Your task to perform on an android device: turn off picture-in-picture Image 0: 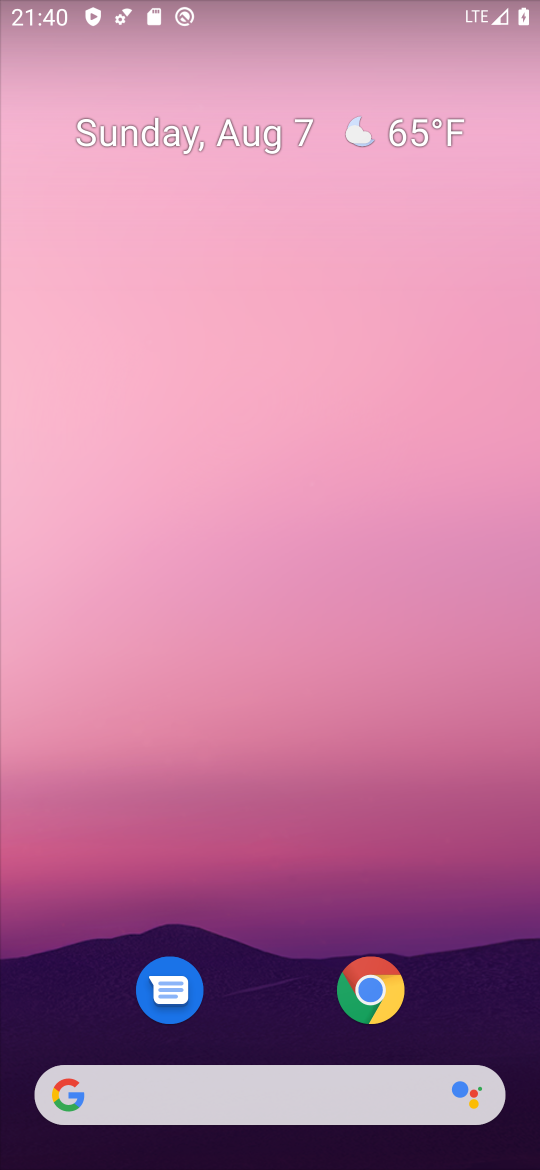
Step 0: click (380, 982)
Your task to perform on an android device: turn off picture-in-picture Image 1: 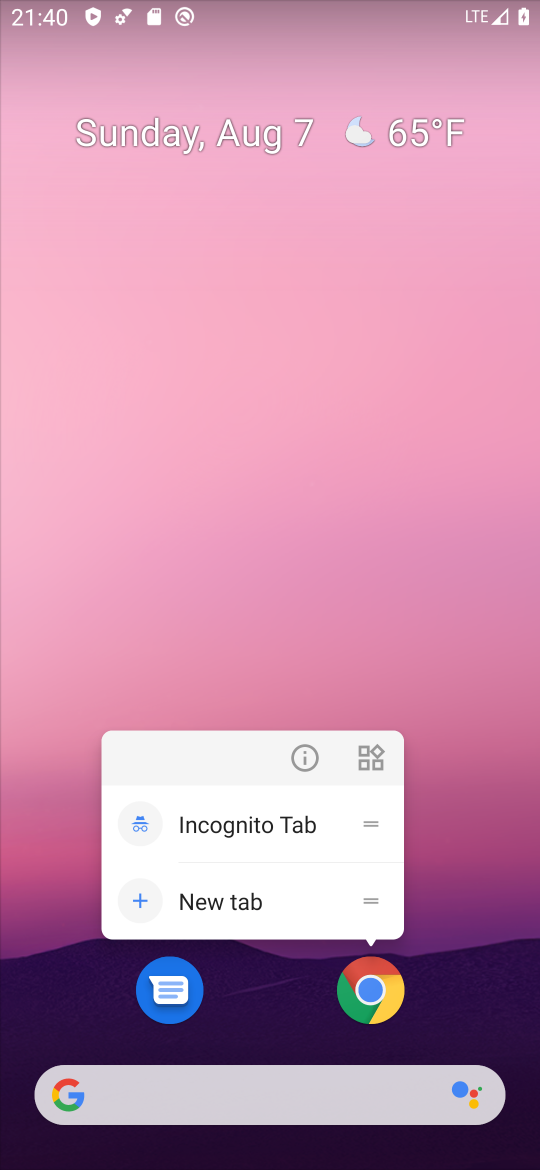
Step 1: click (303, 748)
Your task to perform on an android device: turn off picture-in-picture Image 2: 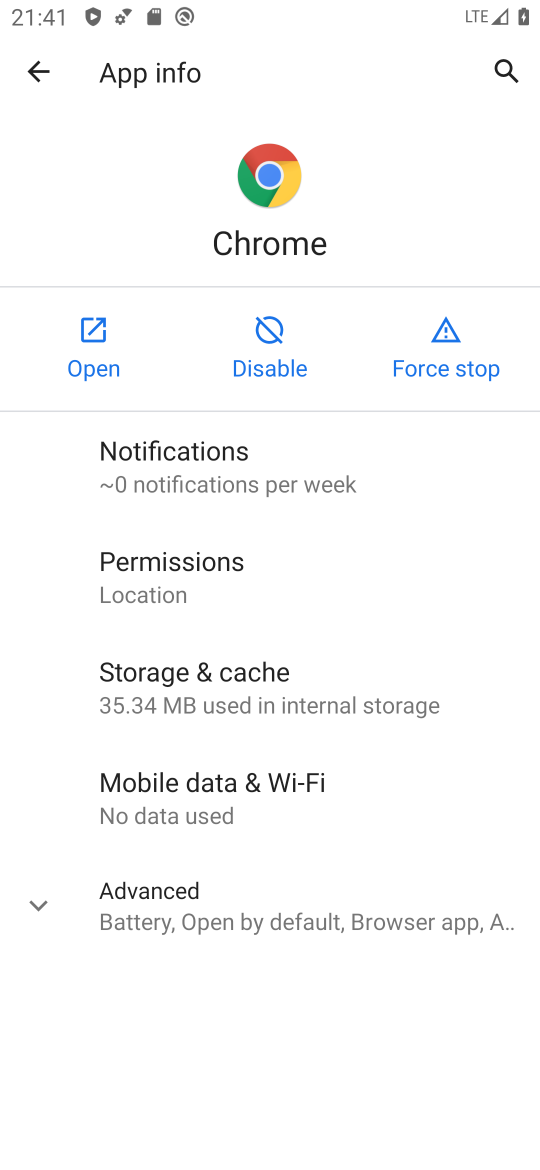
Step 2: click (36, 911)
Your task to perform on an android device: turn off picture-in-picture Image 3: 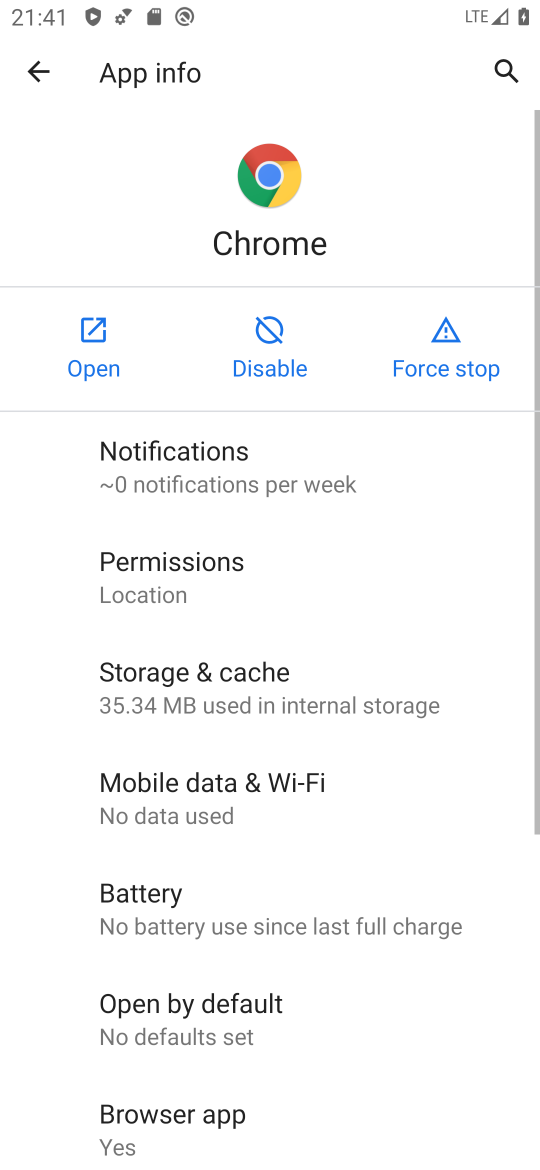
Step 3: drag from (438, 890) to (382, 0)
Your task to perform on an android device: turn off picture-in-picture Image 4: 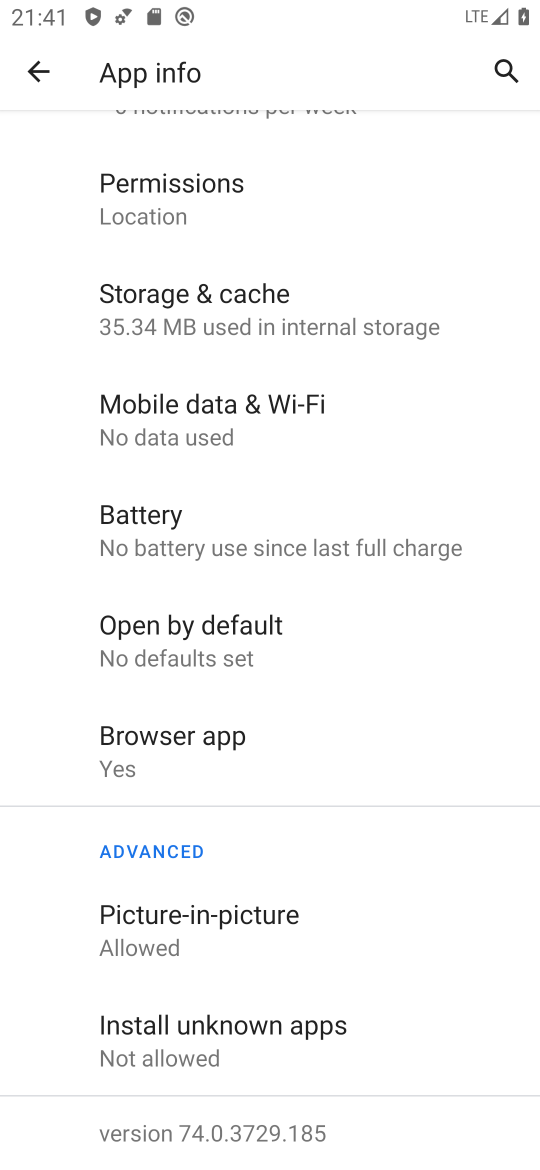
Step 4: click (282, 922)
Your task to perform on an android device: turn off picture-in-picture Image 5: 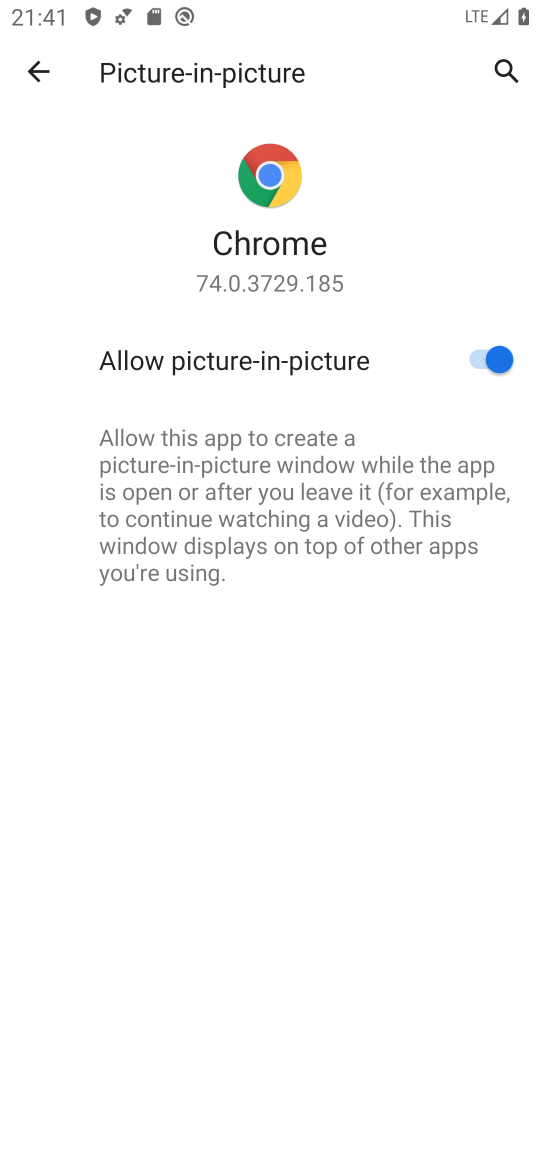
Step 5: click (480, 344)
Your task to perform on an android device: turn off picture-in-picture Image 6: 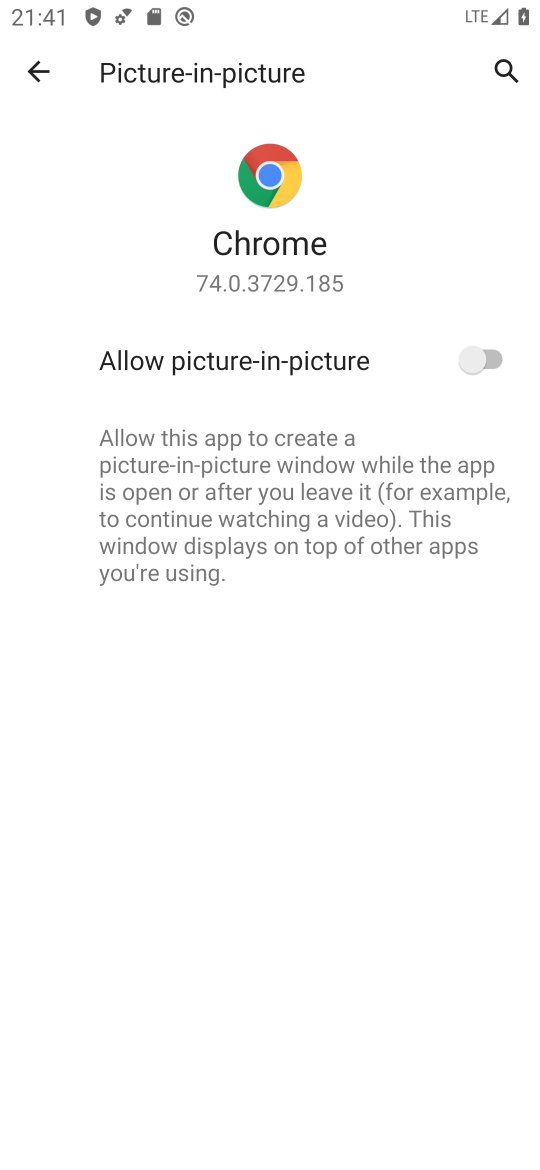
Step 6: task complete